Your task to perform on an android device: show emergency info Image 0: 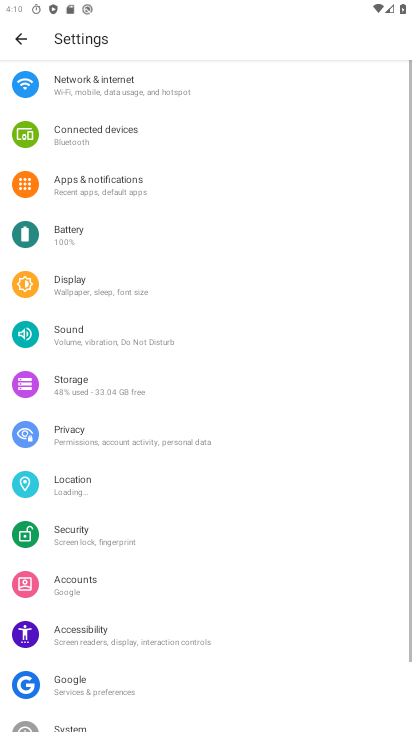
Step 0: drag from (190, 523) to (191, 69)
Your task to perform on an android device: show emergency info Image 1: 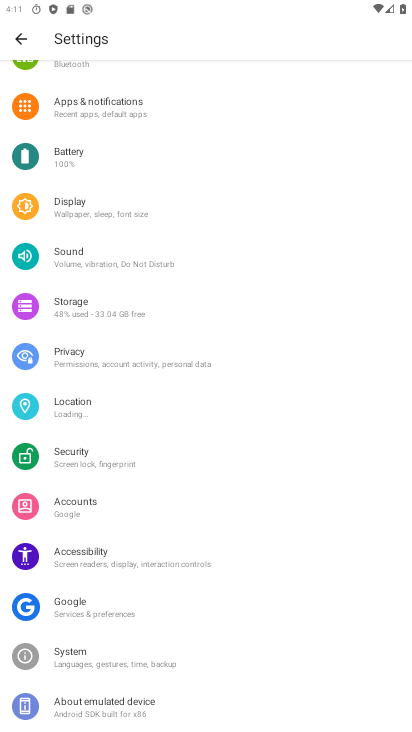
Step 1: click (102, 712)
Your task to perform on an android device: show emergency info Image 2: 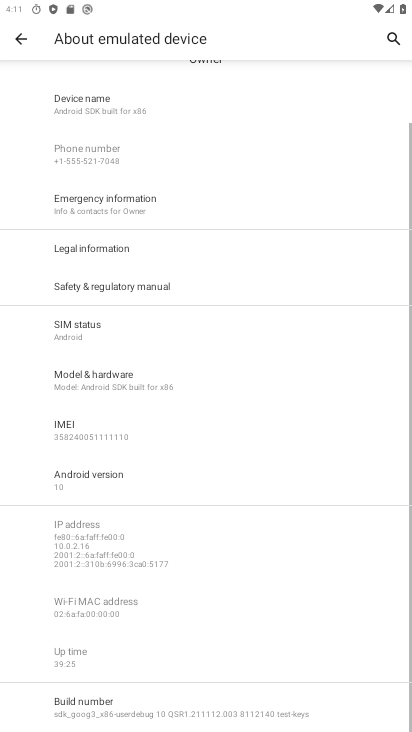
Step 2: click (140, 191)
Your task to perform on an android device: show emergency info Image 3: 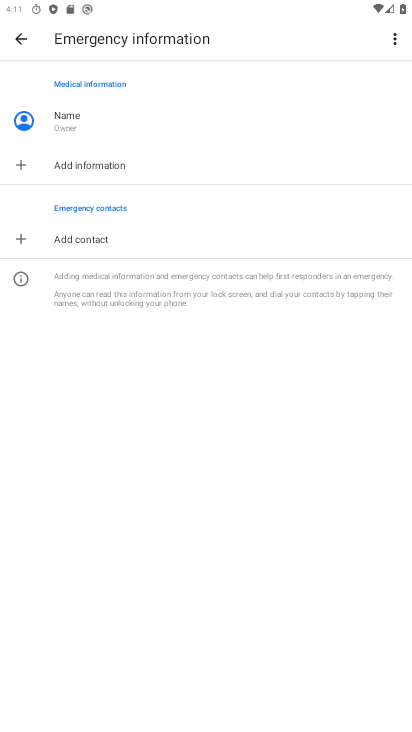
Step 3: task complete